Your task to perform on an android device: Search for rayovac triple a on newegg, select the first entry, add it to the cart, then select checkout. Image 0: 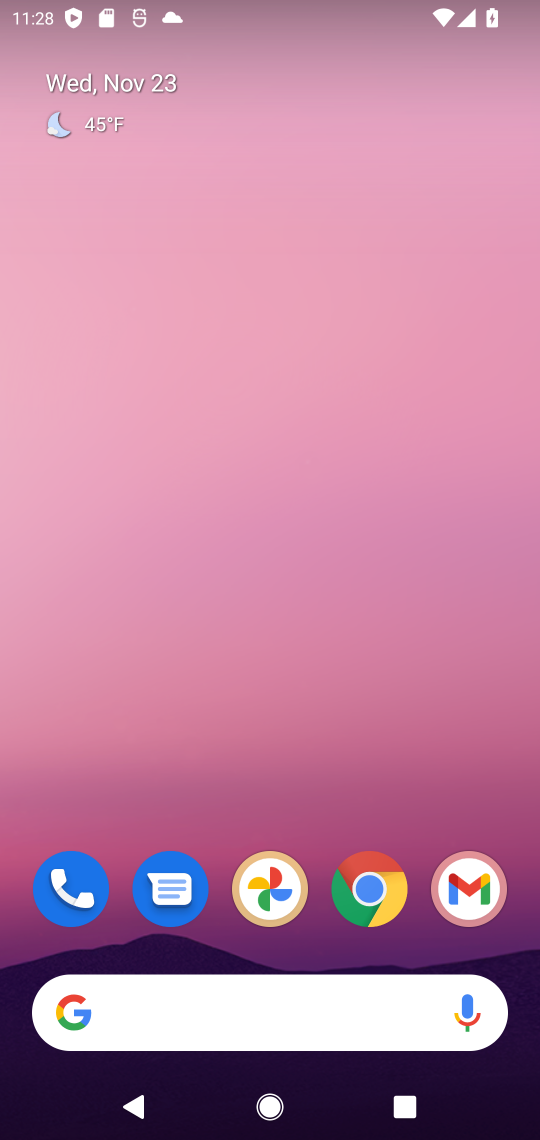
Step 0: click (354, 894)
Your task to perform on an android device: Search for rayovac triple a on newegg, select the first entry, add it to the cart, then select checkout. Image 1: 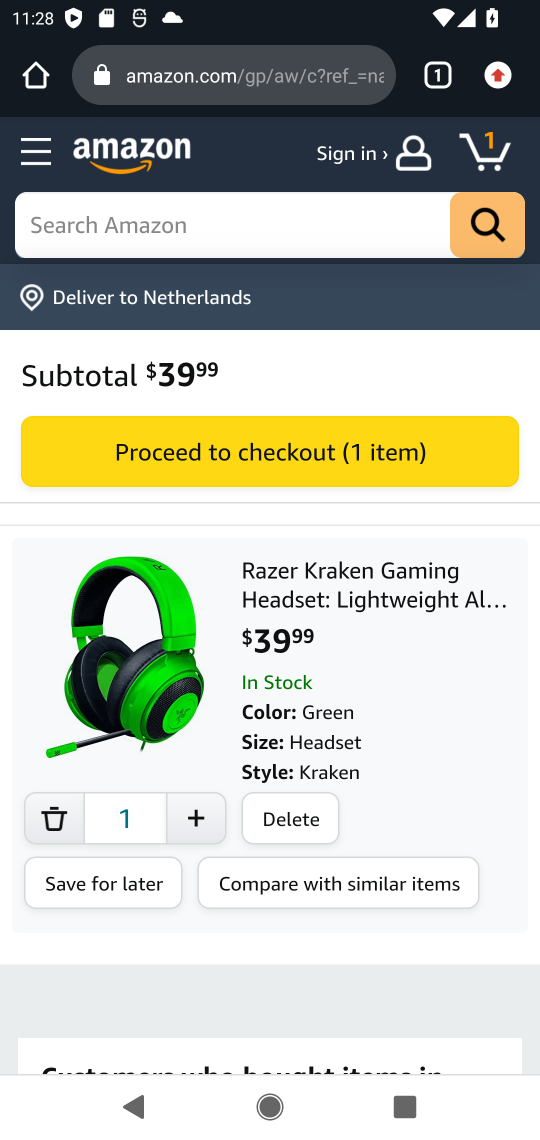
Step 1: click (210, 63)
Your task to perform on an android device: Search for rayovac triple a on newegg, select the first entry, add it to the cart, then select checkout. Image 2: 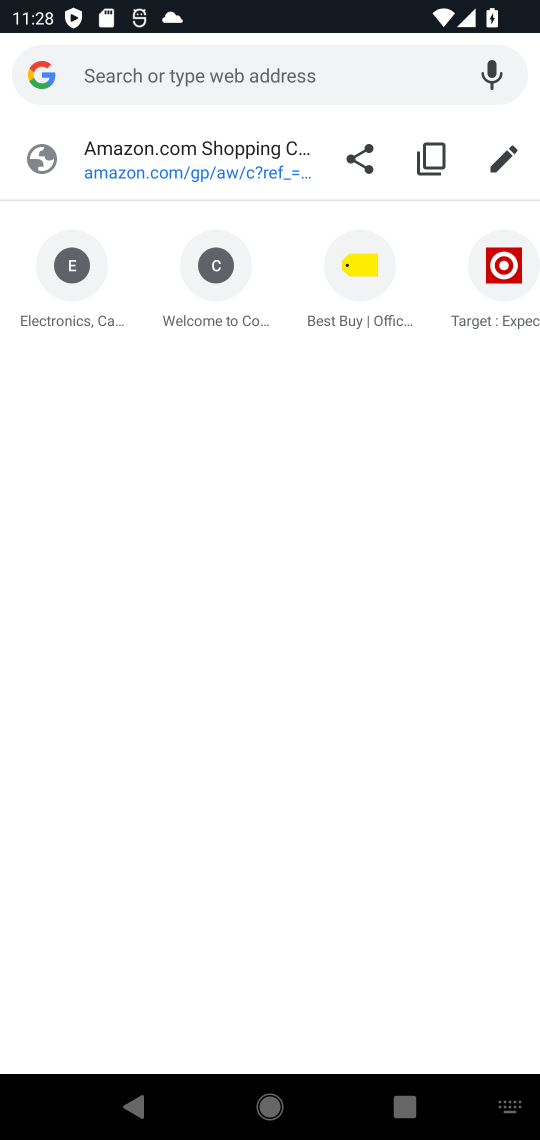
Step 2: type "newegg.com"
Your task to perform on an android device: Search for rayovac triple a on newegg, select the first entry, add it to the cart, then select checkout. Image 3: 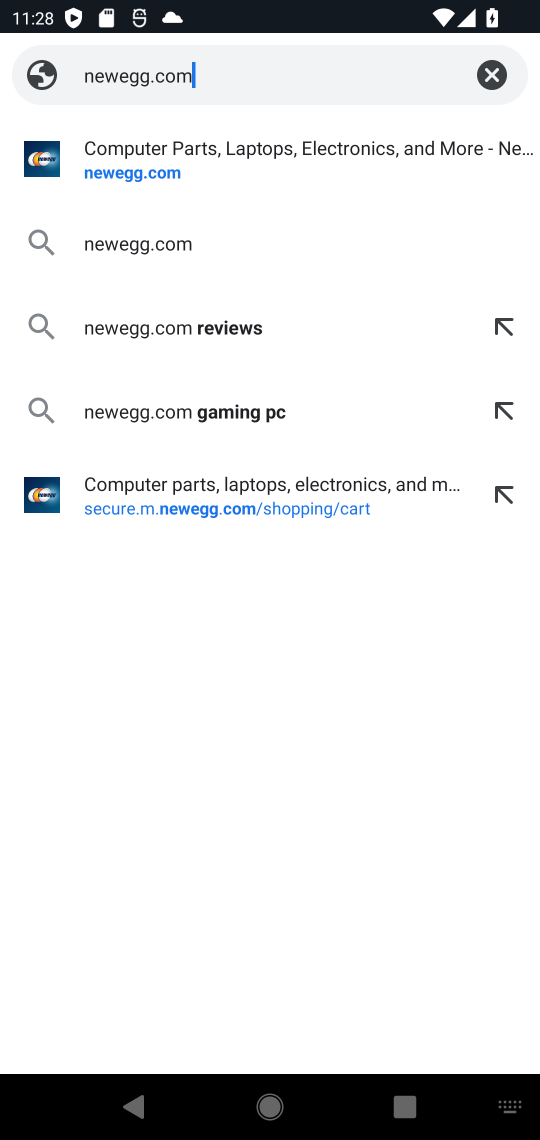
Step 3: click (131, 178)
Your task to perform on an android device: Search for rayovac triple a on newegg, select the first entry, add it to the cart, then select checkout. Image 4: 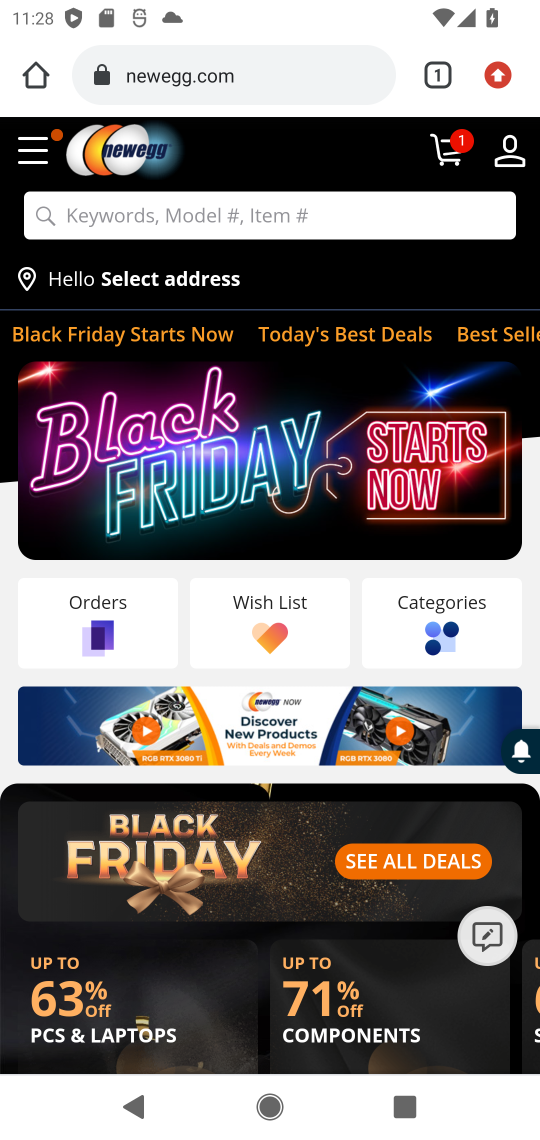
Step 4: click (117, 219)
Your task to perform on an android device: Search for rayovac triple a on newegg, select the first entry, add it to the cart, then select checkout. Image 5: 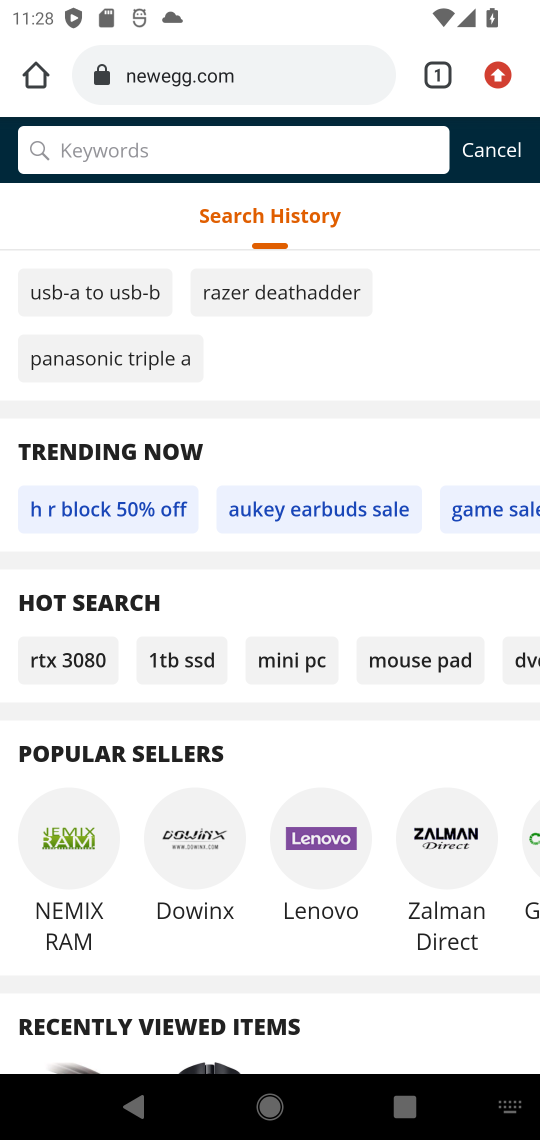
Step 5: type "rayovac triple a"
Your task to perform on an android device: Search for rayovac triple a on newegg, select the first entry, add it to the cart, then select checkout. Image 6: 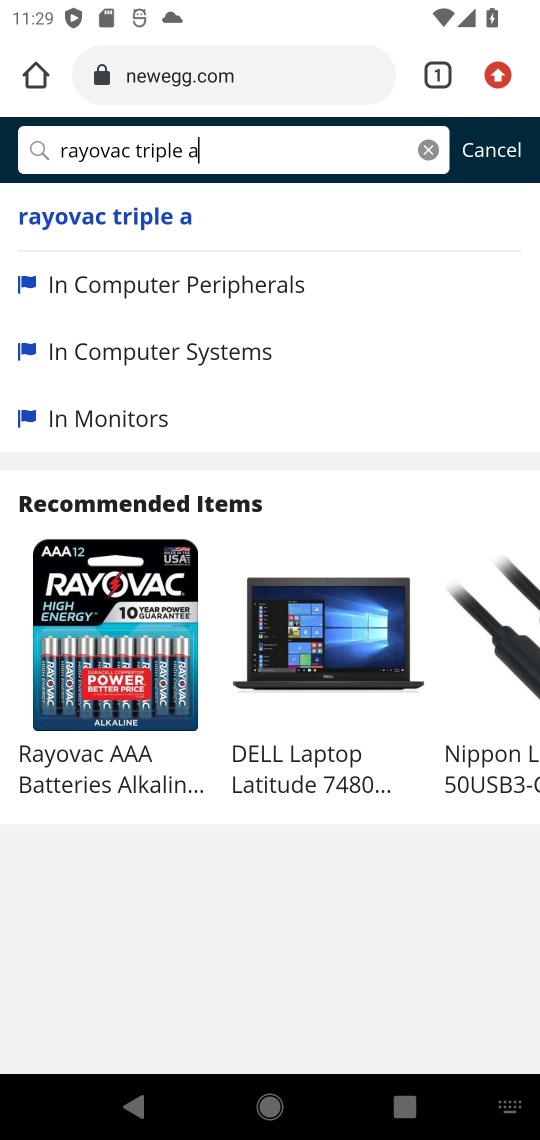
Step 6: click (93, 225)
Your task to perform on an android device: Search for rayovac triple a on newegg, select the first entry, add it to the cart, then select checkout. Image 7: 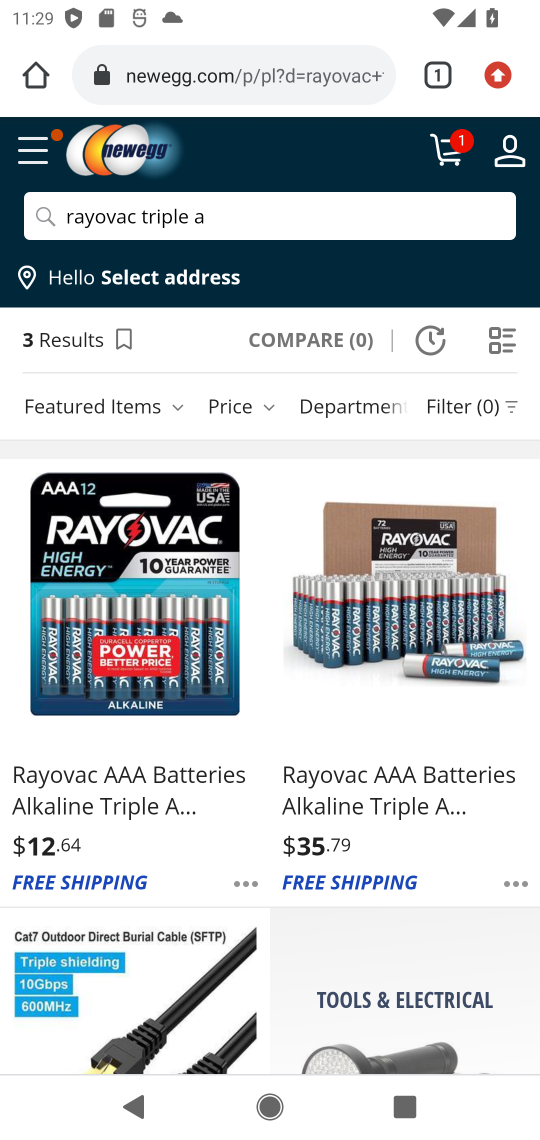
Step 7: click (122, 608)
Your task to perform on an android device: Search for rayovac triple a on newegg, select the first entry, add it to the cart, then select checkout. Image 8: 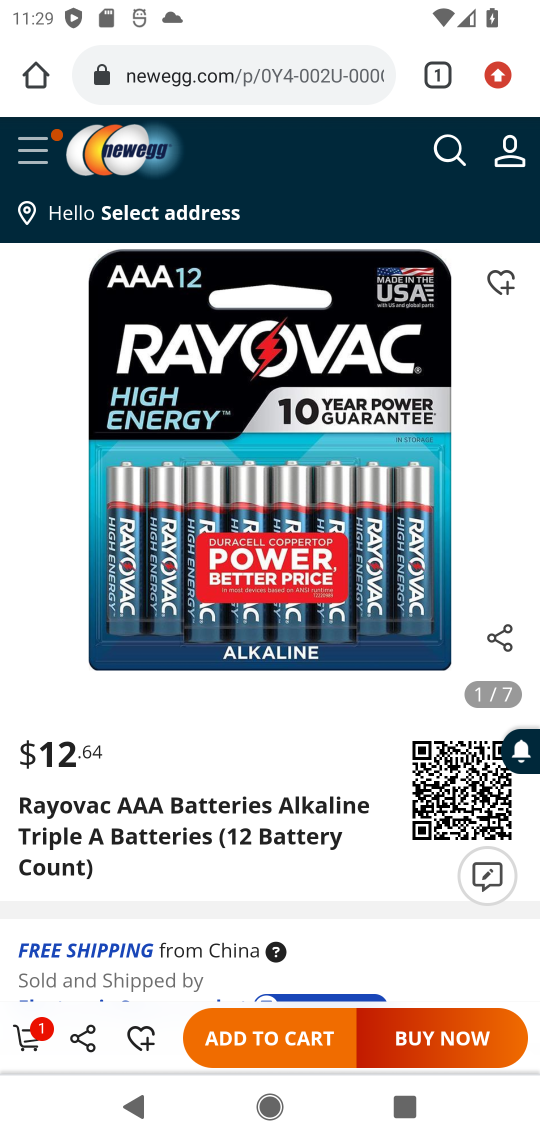
Step 8: click (250, 1042)
Your task to perform on an android device: Search for rayovac triple a on newegg, select the first entry, add it to the cart, then select checkout. Image 9: 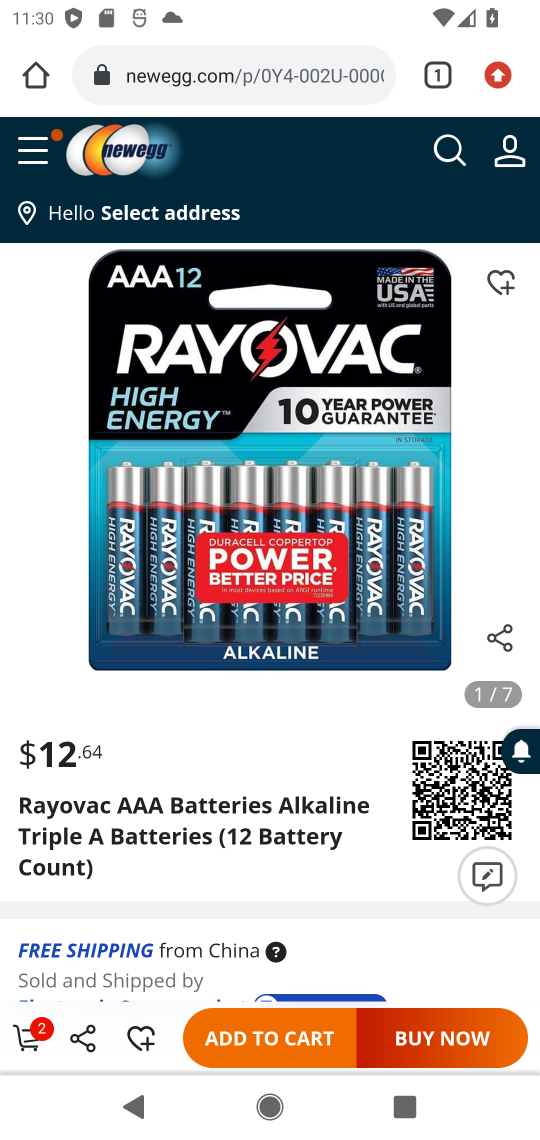
Step 9: click (33, 1035)
Your task to perform on an android device: Search for rayovac triple a on newegg, select the first entry, add it to the cart, then select checkout. Image 10: 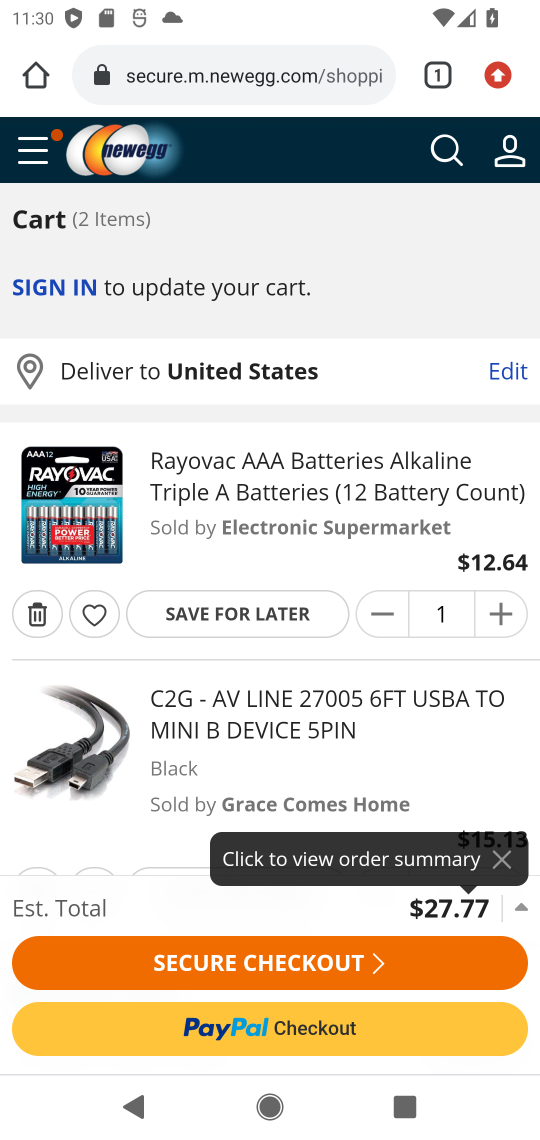
Step 10: click (213, 959)
Your task to perform on an android device: Search for rayovac triple a on newegg, select the first entry, add it to the cart, then select checkout. Image 11: 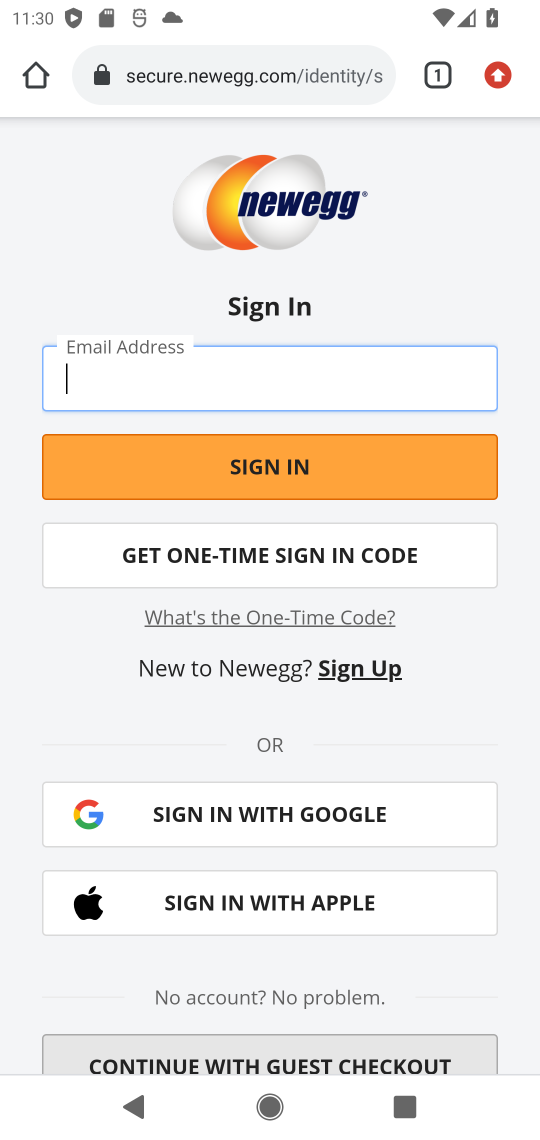
Step 11: task complete